Your task to perform on an android device: turn off location Image 0: 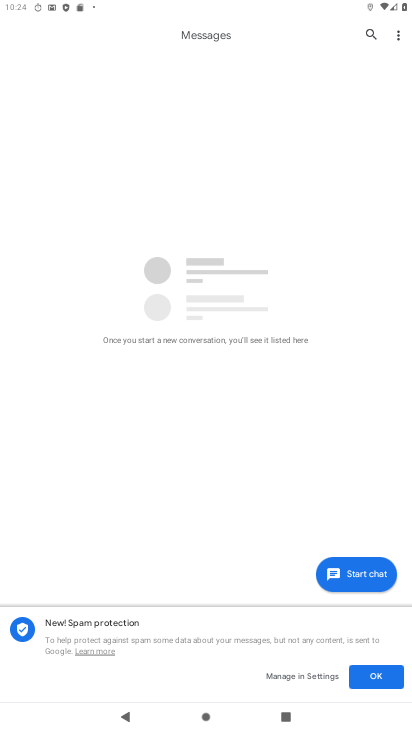
Step 0: press home button
Your task to perform on an android device: turn off location Image 1: 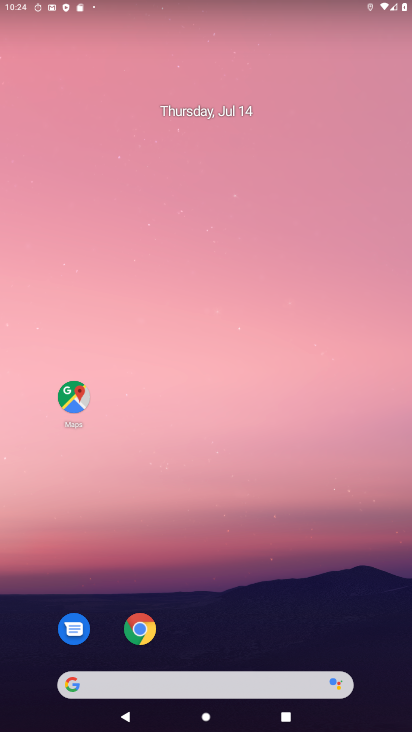
Step 1: drag from (279, 523) to (271, 121)
Your task to perform on an android device: turn off location Image 2: 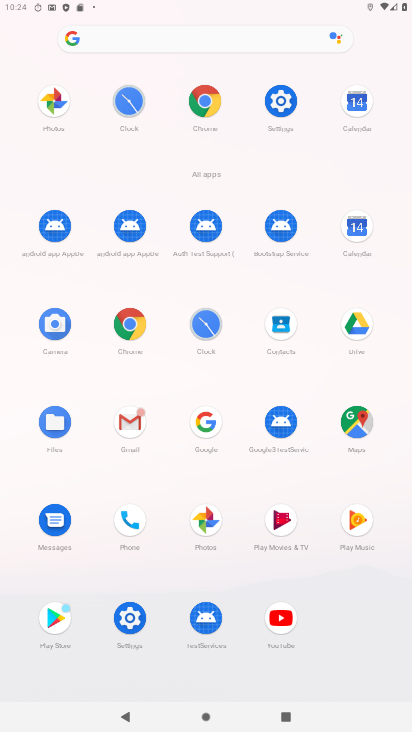
Step 2: click (278, 109)
Your task to perform on an android device: turn off location Image 3: 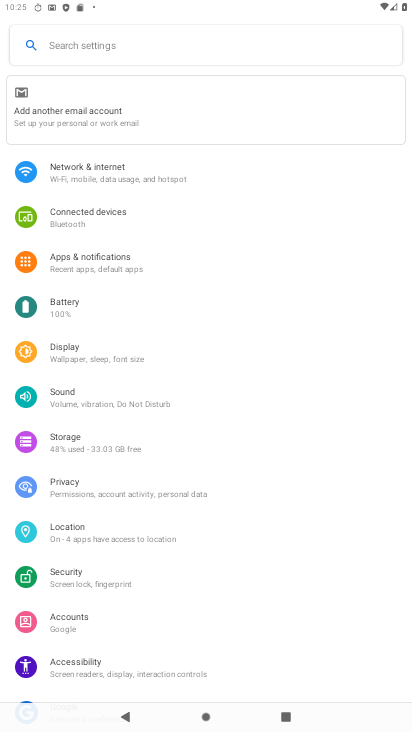
Step 3: click (56, 538)
Your task to perform on an android device: turn off location Image 4: 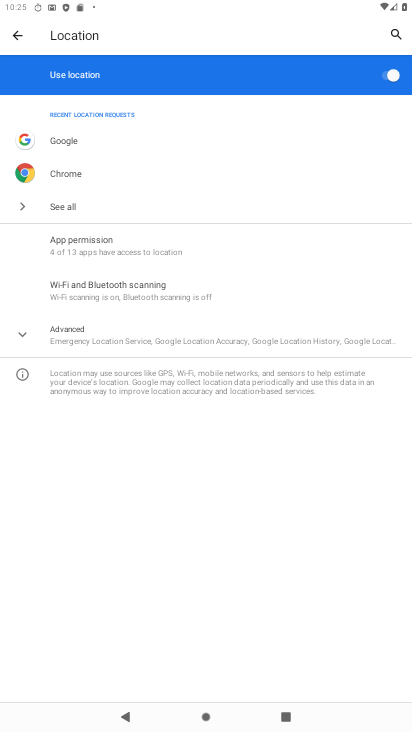
Step 4: click (381, 76)
Your task to perform on an android device: turn off location Image 5: 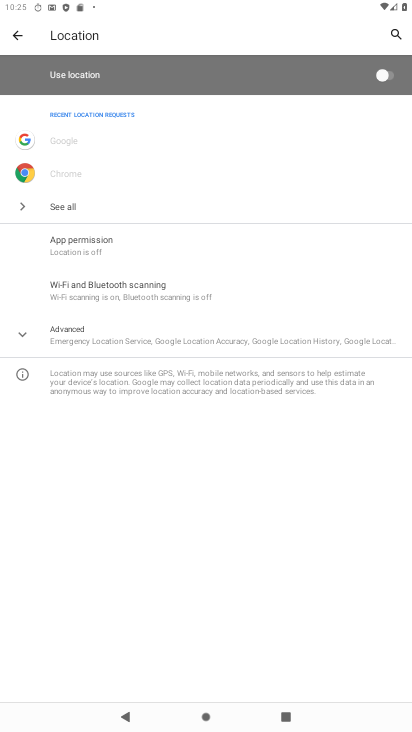
Step 5: task complete